Your task to perform on an android device: Go to accessibility settings Image 0: 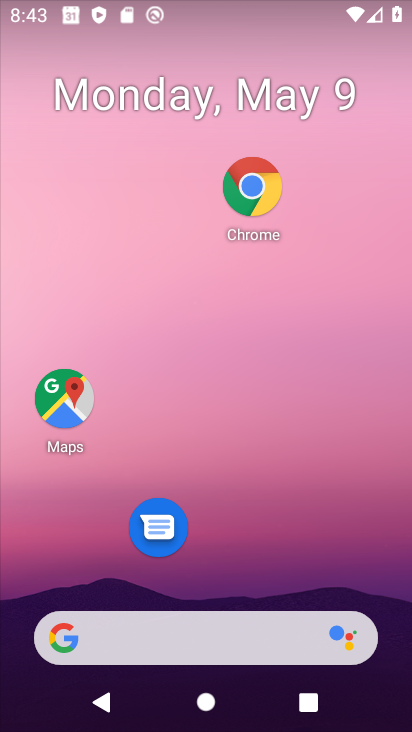
Step 0: drag from (208, 590) to (238, 64)
Your task to perform on an android device: Go to accessibility settings Image 1: 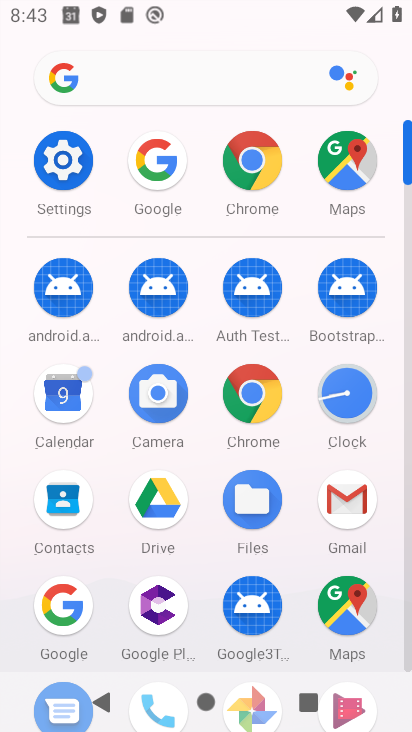
Step 1: drag from (197, 580) to (216, 117)
Your task to perform on an android device: Go to accessibility settings Image 2: 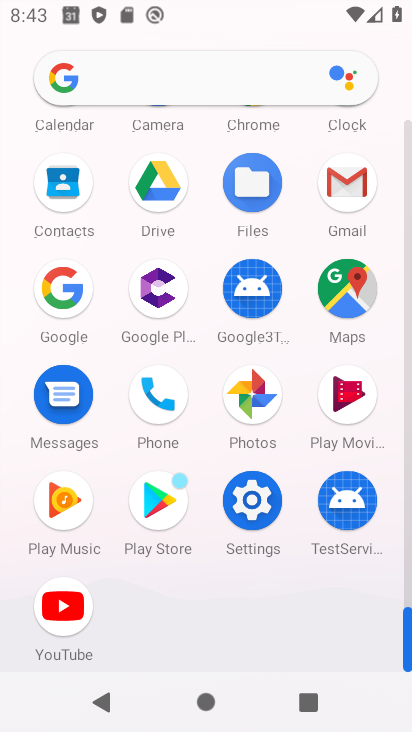
Step 2: click (248, 492)
Your task to perform on an android device: Go to accessibility settings Image 3: 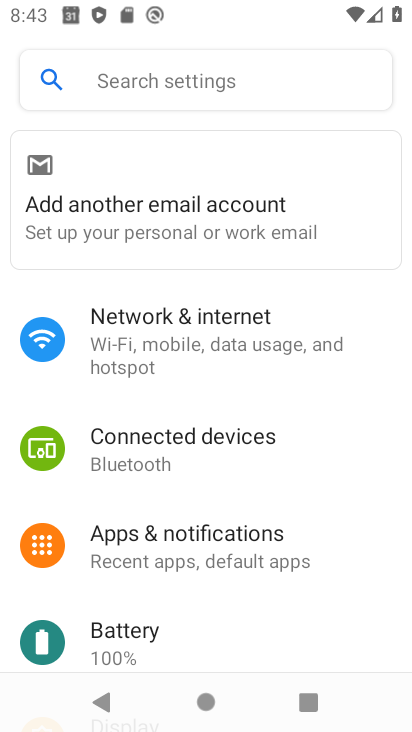
Step 3: drag from (181, 599) to (239, 85)
Your task to perform on an android device: Go to accessibility settings Image 4: 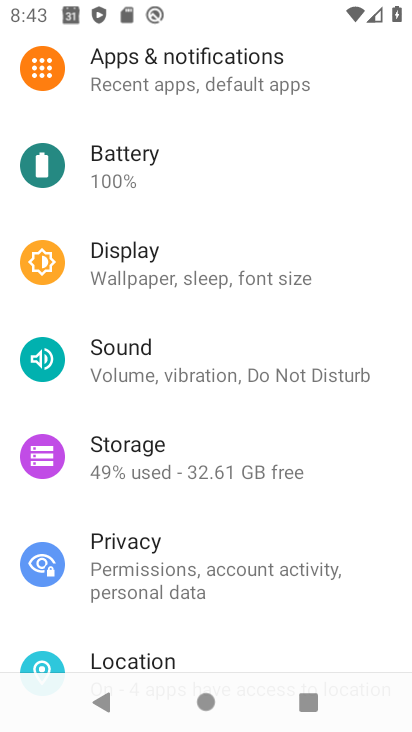
Step 4: drag from (193, 630) to (259, 92)
Your task to perform on an android device: Go to accessibility settings Image 5: 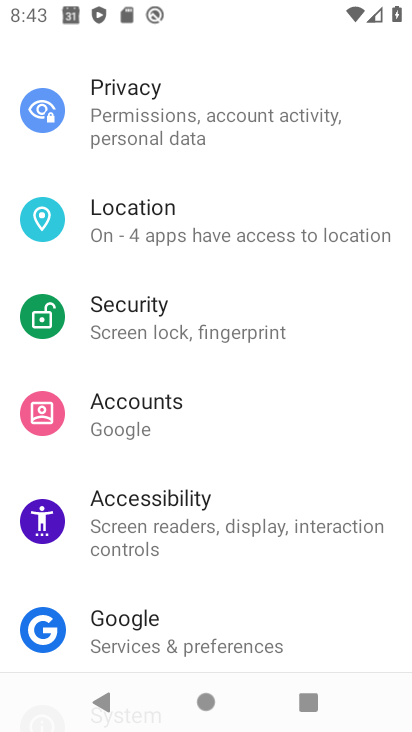
Step 5: click (220, 500)
Your task to perform on an android device: Go to accessibility settings Image 6: 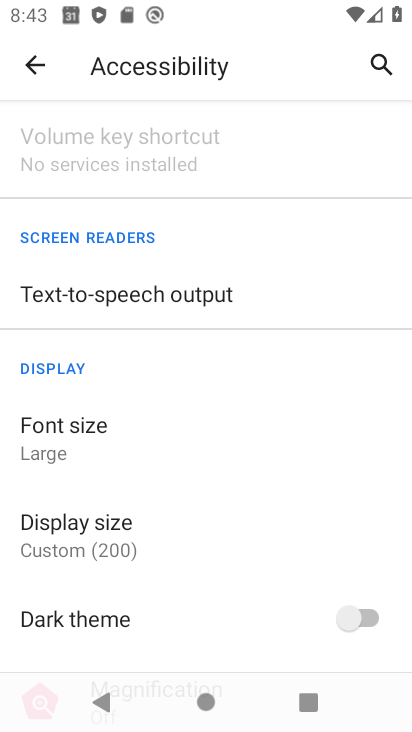
Step 6: task complete